Your task to perform on an android device: add a contact in the contacts app Image 0: 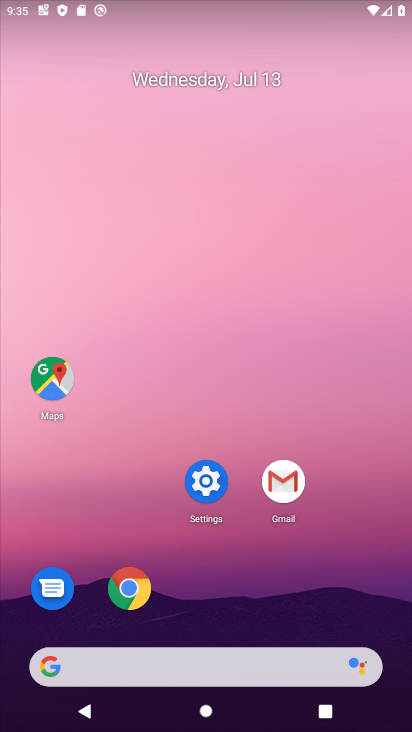
Step 0: drag from (389, 525) to (324, 105)
Your task to perform on an android device: add a contact in the contacts app Image 1: 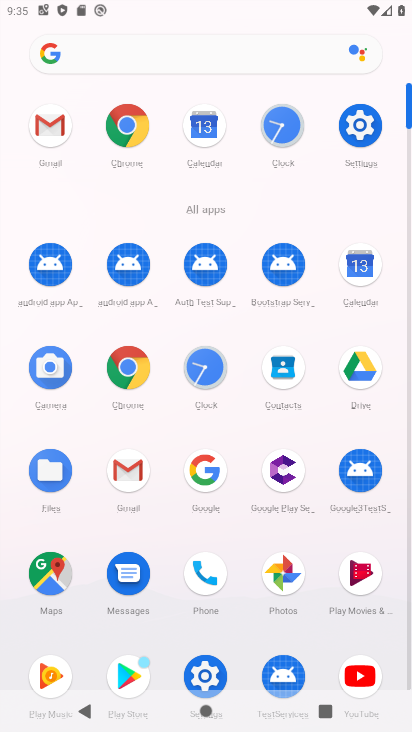
Step 1: click (272, 371)
Your task to perform on an android device: add a contact in the contacts app Image 2: 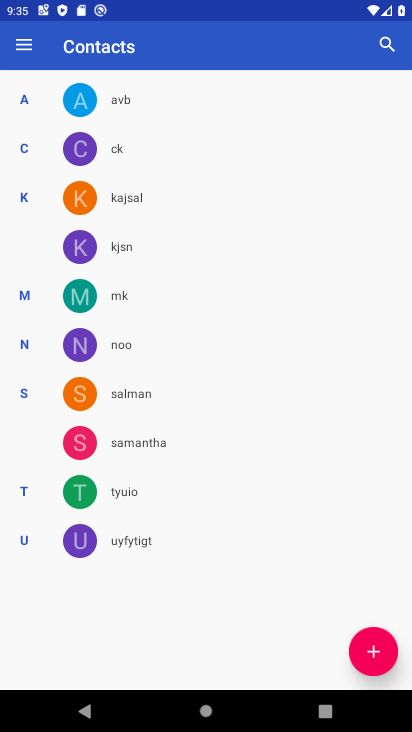
Step 2: click (367, 649)
Your task to perform on an android device: add a contact in the contacts app Image 3: 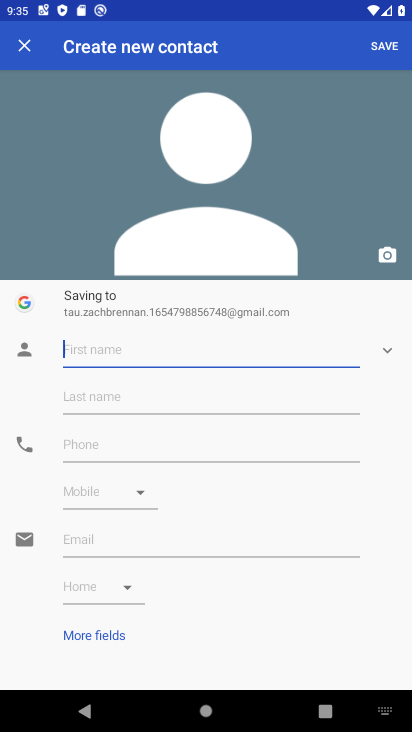
Step 3: type "sfdgfjgffjhgk"
Your task to perform on an android device: add a contact in the contacts app Image 4: 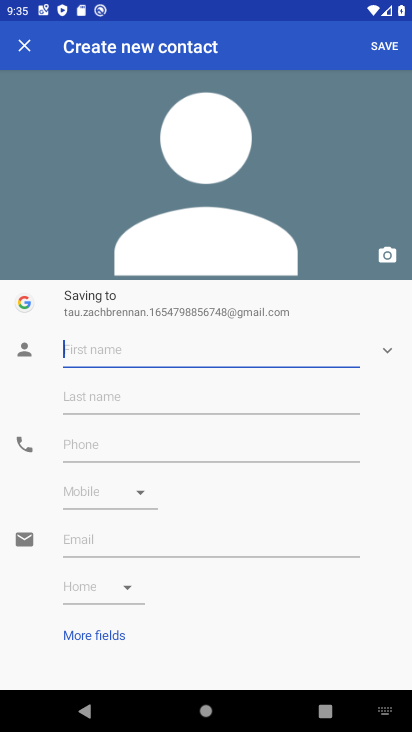
Step 4: click (112, 392)
Your task to perform on an android device: add a contact in the contacts app Image 5: 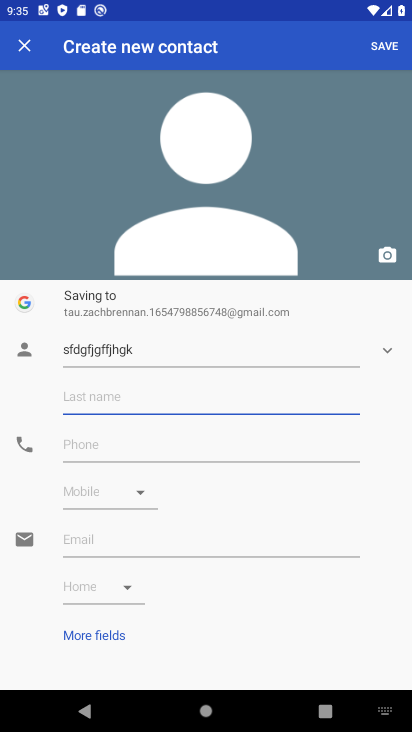
Step 5: type "mghcjgfkfj"
Your task to perform on an android device: add a contact in the contacts app Image 6: 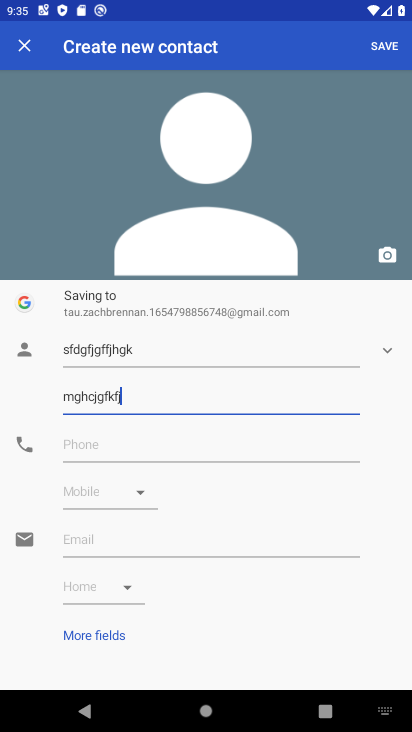
Step 6: click (69, 448)
Your task to perform on an android device: add a contact in the contacts app Image 7: 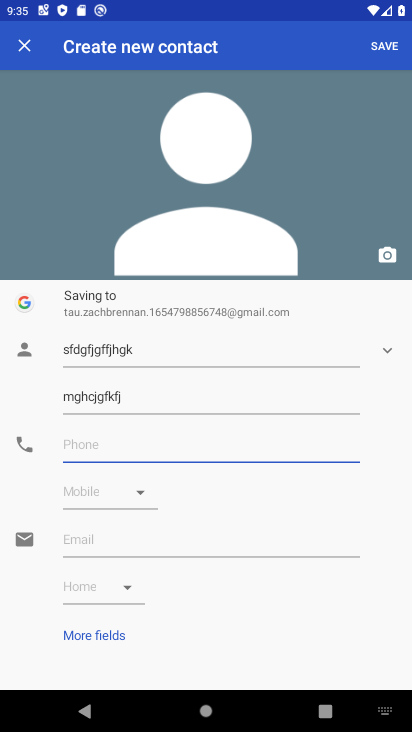
Step 7: type "74476876856"
Your task to perform on an android device: add a contact in the contacts app Image 8: 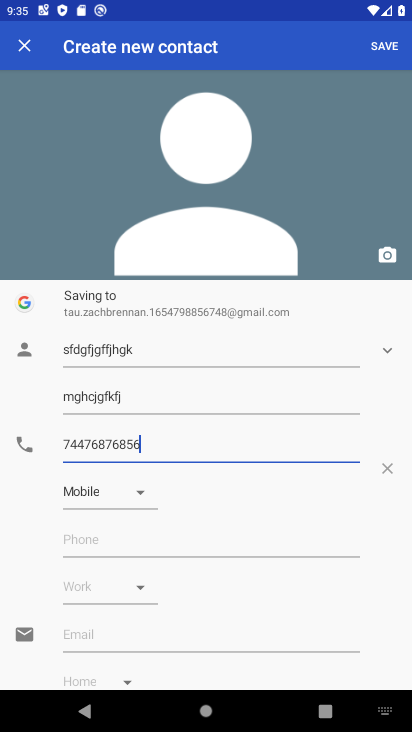
Step 8: click (389, 42)
Your task to perform on an android device: add a contact in the contacts app Image 9: 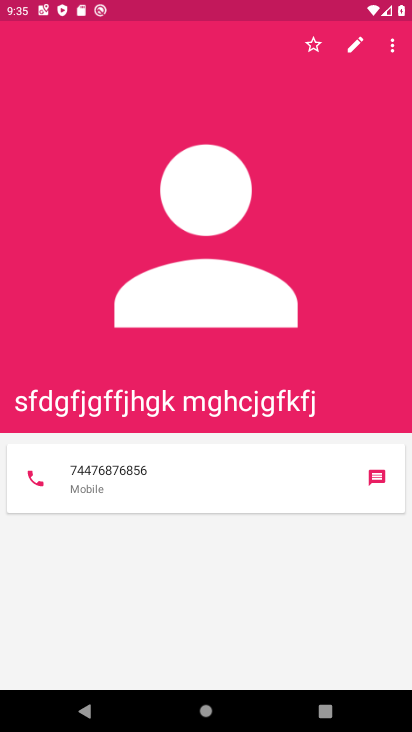
Step 9: task complete